Your task to perform on an android device: move a message to another label in the gmail app Image 0: 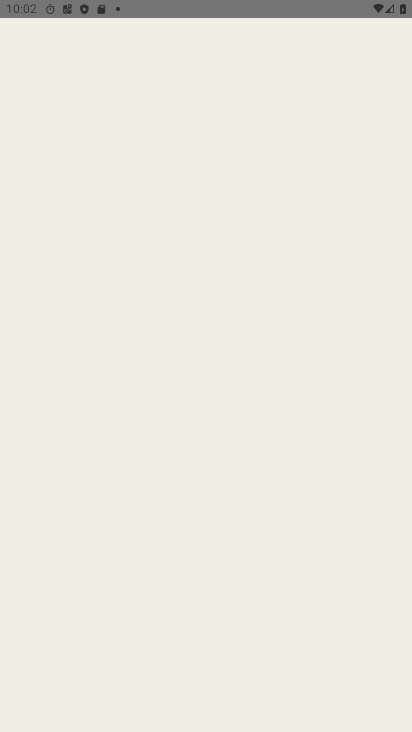
Step 0: click (190, 225)
Your task to perform on an android device: move a message to another label in the gmail app Image 1: 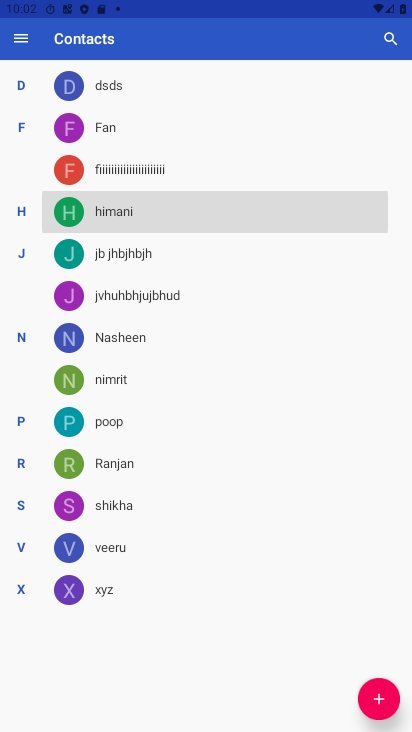
Step 1: drag from (237, 652) to (180, 204)
Your task to perform on an android device: move a message to another label in the gmail app Image 2: 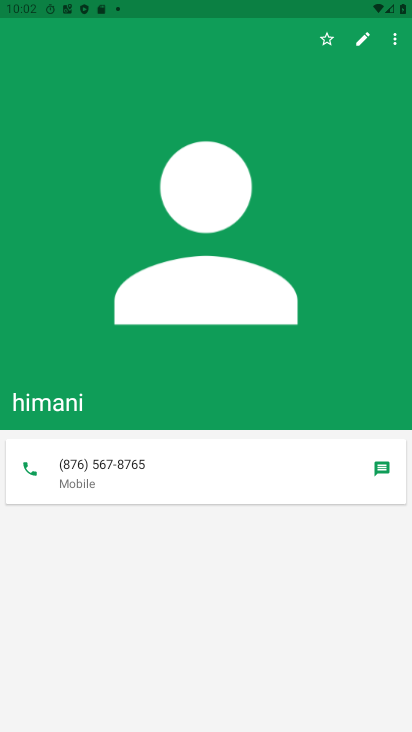
Step 2: press back button
Your task to perform on an android device: move a message to another label in the gmail app Image 3: 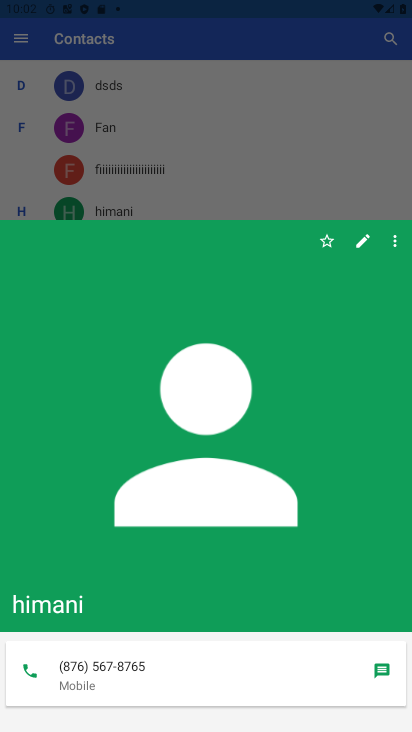
Step 3: press back button
Your task to perform on an android device: move a message to another label in the gmail app Image 4: 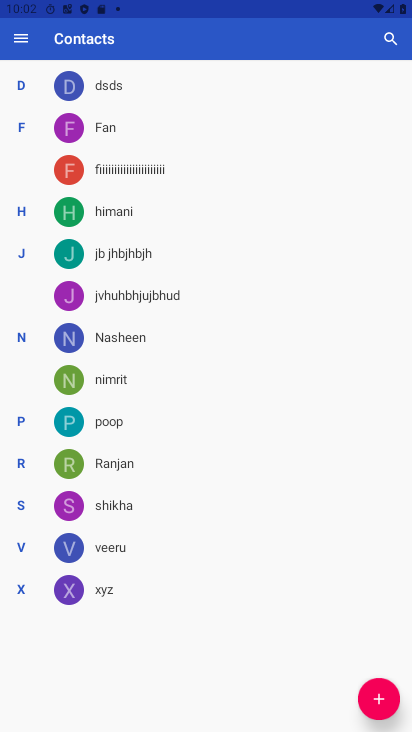
Step 4: press home button
Your task to perform on an android device: move a message to another label in the gmail app Image 5: 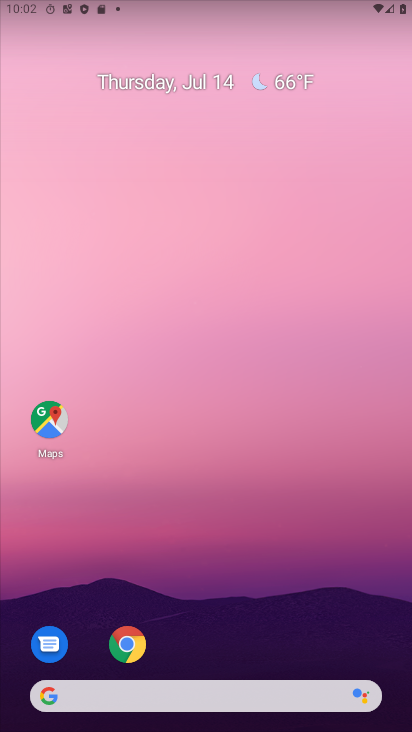
Step 5: press back button
Your task to perform on an android device: move a message to another label in the gmail app Image 6: 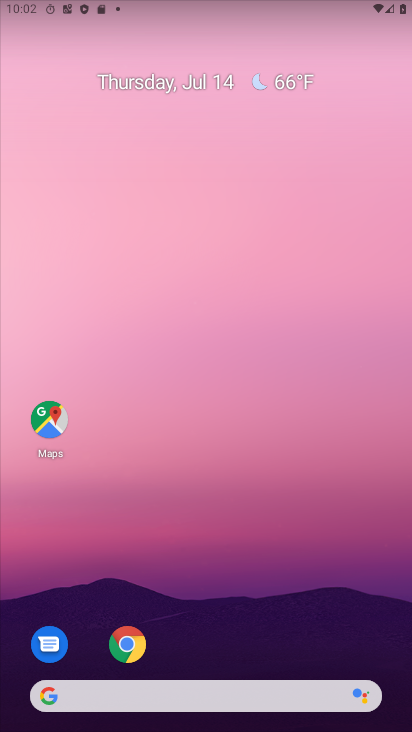
Step 6: drag from (221, 362) to (203, 203)
Your task to perform on an android device: move a message to another label in the gmail app Image 7: 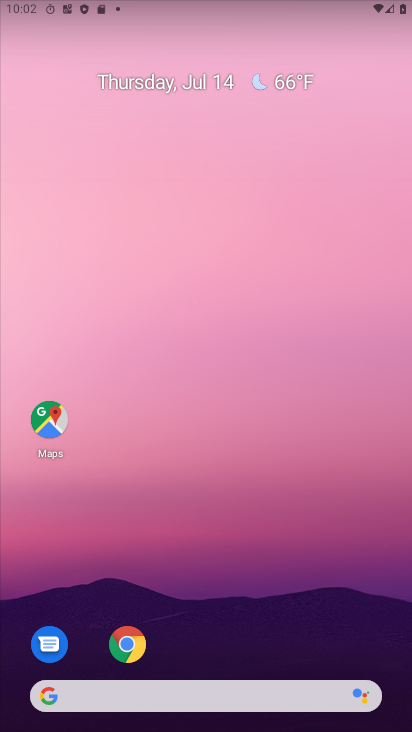
Step 7: drag from (195, 688) to (221, 136)
Your task to perform on an android device: move a message to another label in the gmail app Image 8: 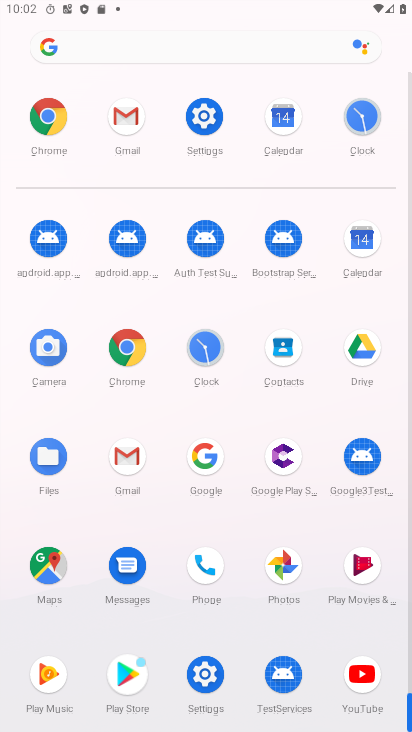
Step 8: click (123, 466)
Your task to perform on an android device: move a message to another label in the gmail app Image 9: 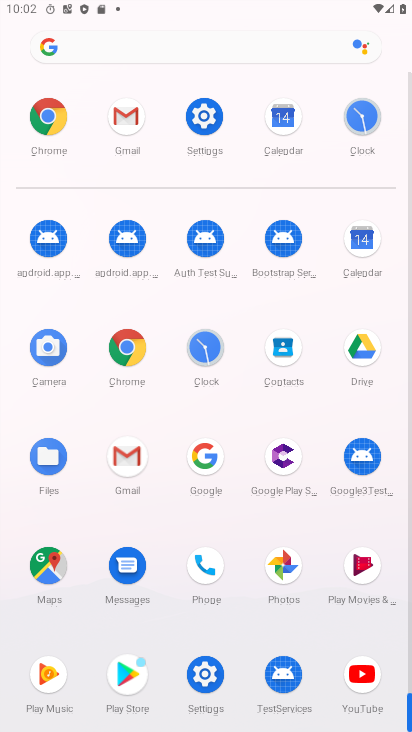
Step 9: click (123, 461)
Your task to perform on an android device: move a message to another label in the gmail app Image 10: 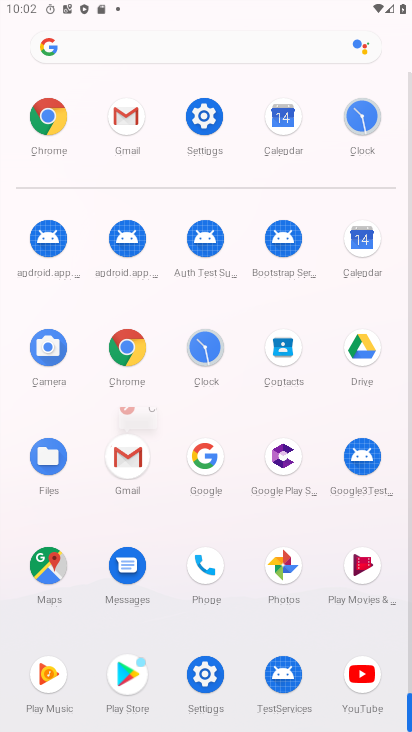
Step 10: click (123, 461)
Your task to perform on an android device: move a message to another label in the gmail app Image 11: 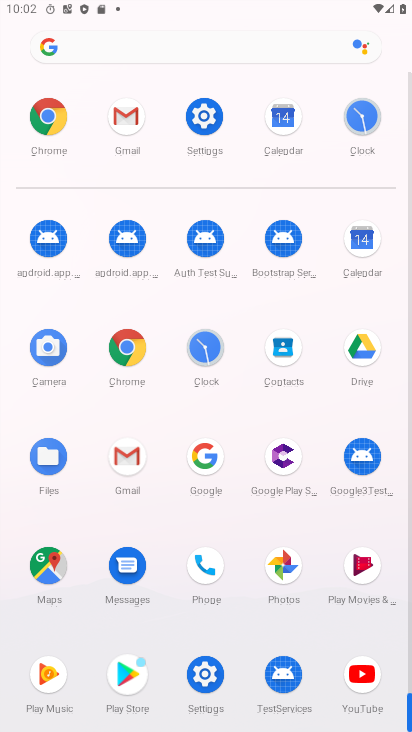
Step 11: click (123, 461)
Your task to perform on an android device: move a message to another label in the gmail app Image 12: 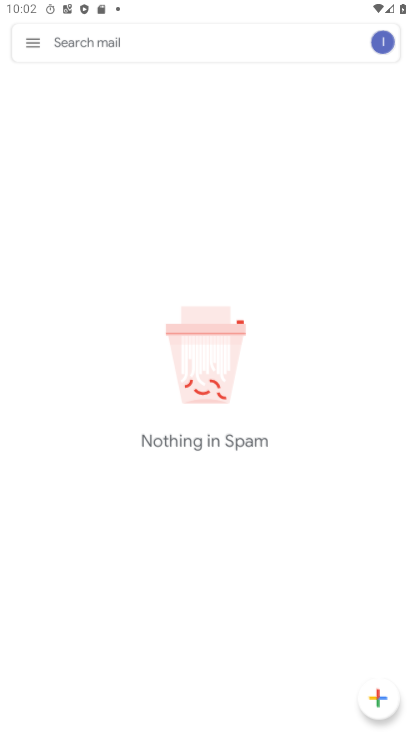
Step 12: click (123, 460)
Your task to perform on an android device: move a message to another label in the gmail app Image 13: 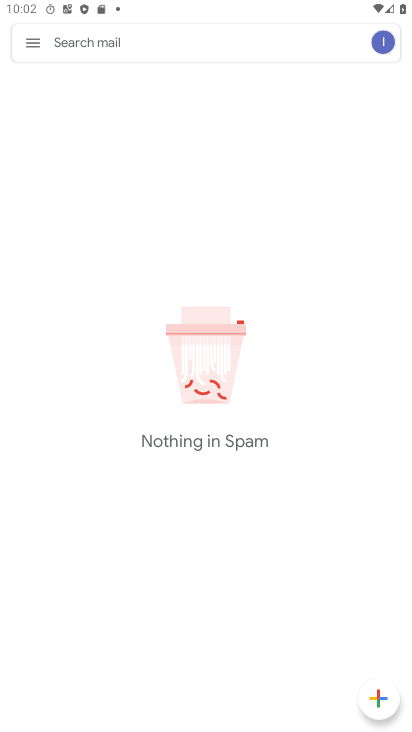
Step 13: click (28, 46)
Your task to perform on an android device: move a message to another label in the gmail app Image 14: 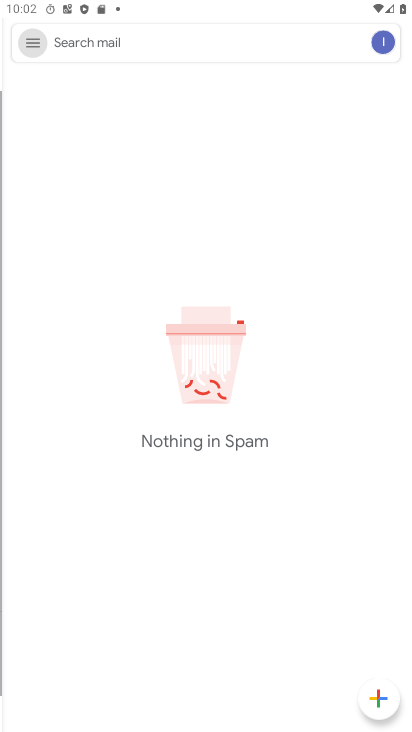
Step 14: click (28, 45)
Your task to perform on an android device: move a message to another label in the gmail app Image 15: 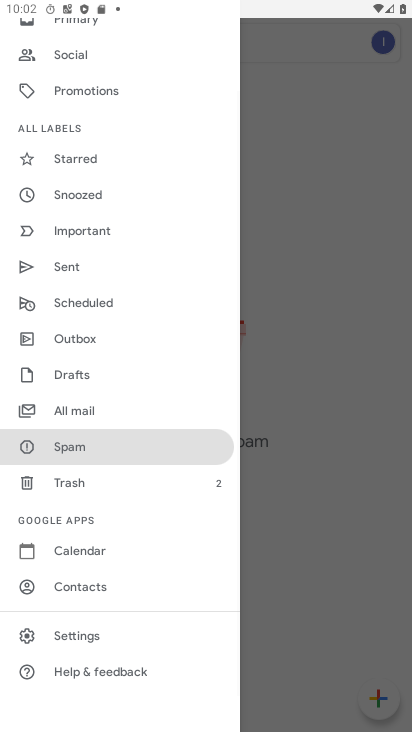
Step 15: click (84, 413)
Your task to perform on an android device: move a message to another label in the gmail app Image 16: 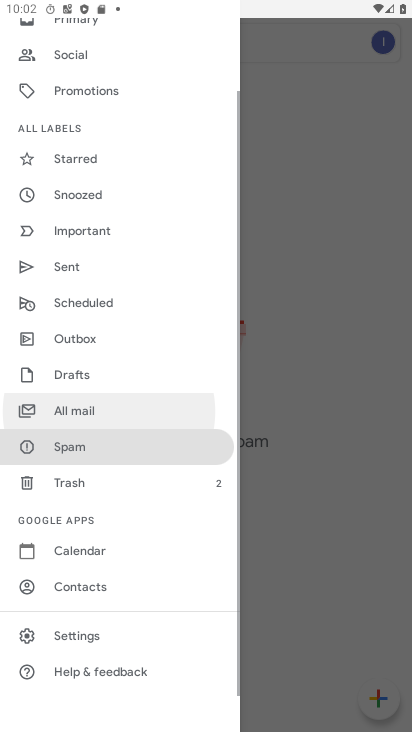
Step 16: click (83, 414)
Your task to perform on an android device: move a message to another label in the gmail app Image 17: 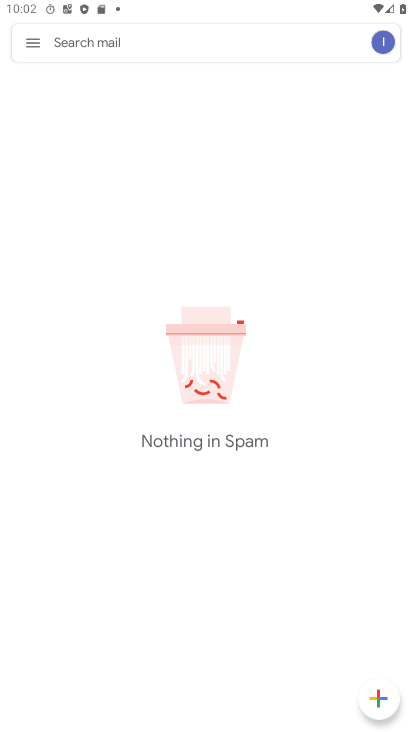
Step 17: click (83, 417)
Your task to perform on an android device: move a message to another label in the gmail app Image 18: 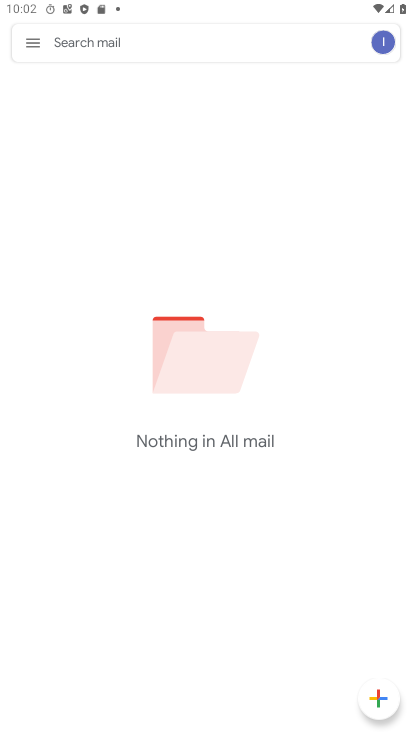
Step 18: task complete